Your task to perform on an android device: change alarm snooze length Image 0: 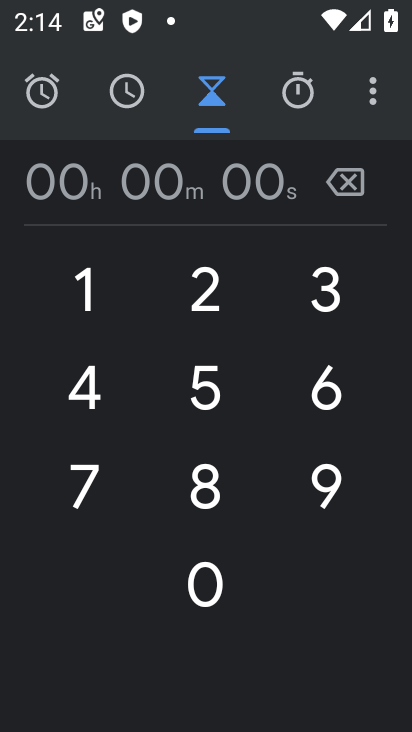
Step 0: click (381, 101)
Your task to perform on an android device: change alarm snooze length Image 1: 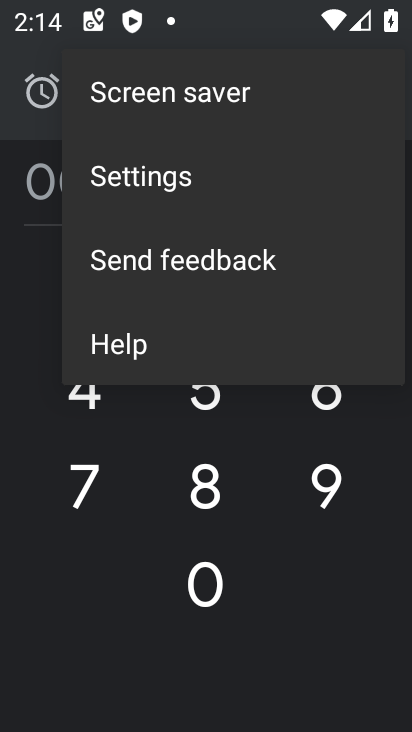
Step 1: click (179, 199)
Your task to perform on an android device: change alarm snooze length Image 2: 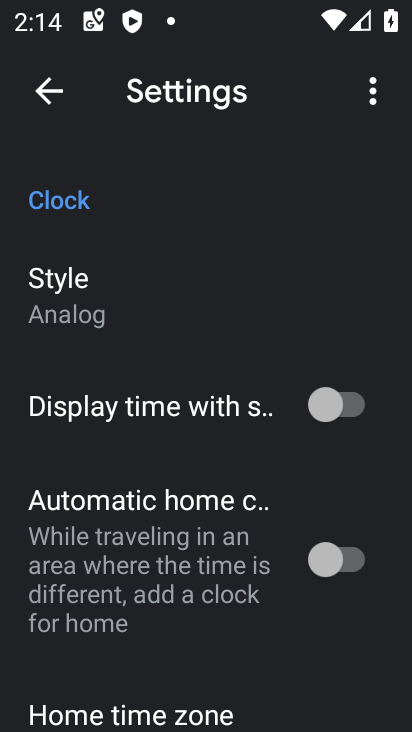
Step 2: drag from (214, 595) to (193, 412)
Your task to perform on an android device: change alarm snooze length Image 3: 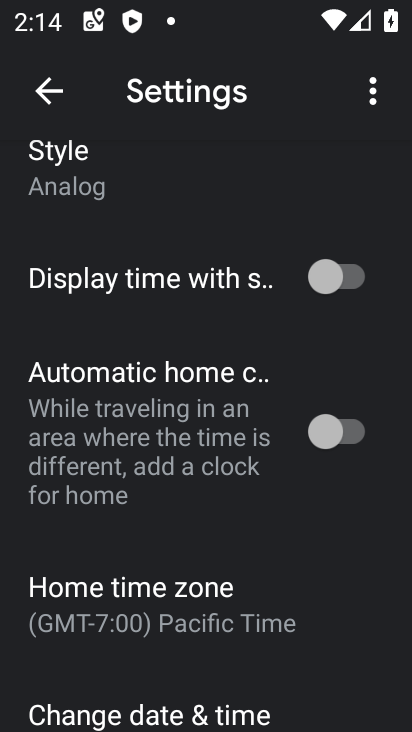
Step 3: drag from (153, 593) to (143, 307)
Your task to perform on an android device: change alarm snooze length Image 4: 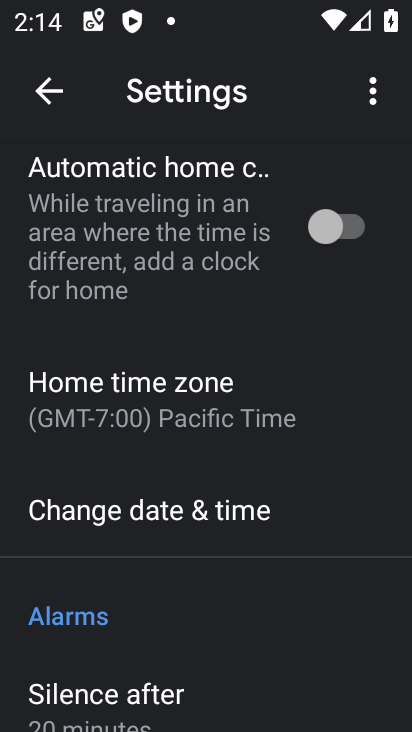
Step 4: drag from (158, 576) to (160, 309)
Your task to perform on an android device: change alarm snooze length Image 5: 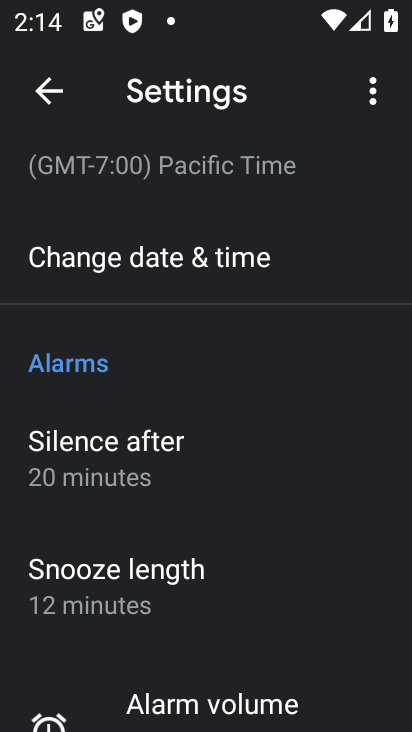
Step 5: click (195, 575)
Your task to perform on an android device: change alarm snooze length Image 6: 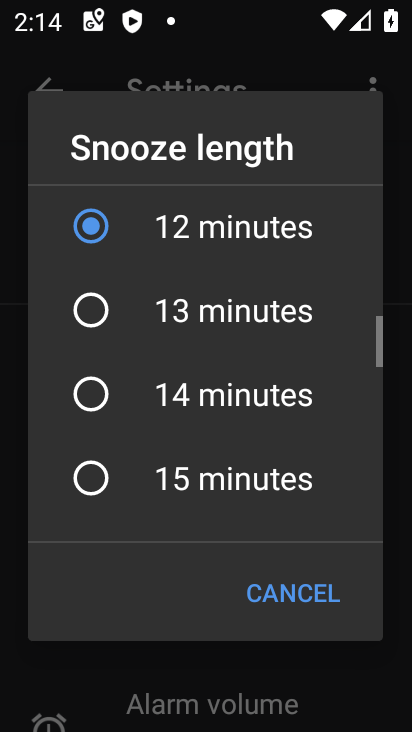
Step 6: click (156, 288)
Your task to perform on an android device: change alarm snooze length Image 7: 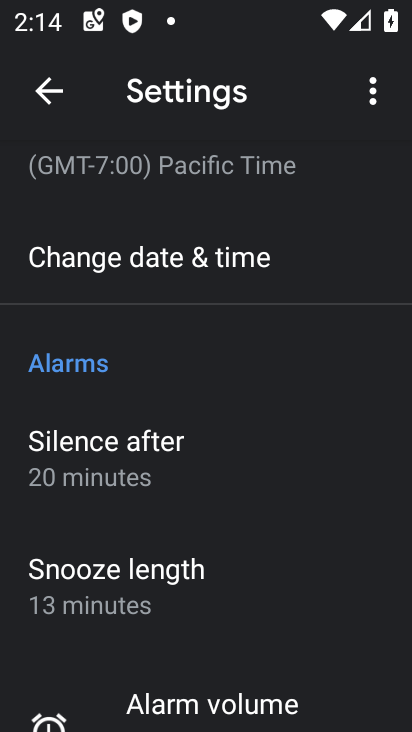
Step 7: task complete